Your task to perform on an android device: make emails show in primary in the gmail app Image 0: 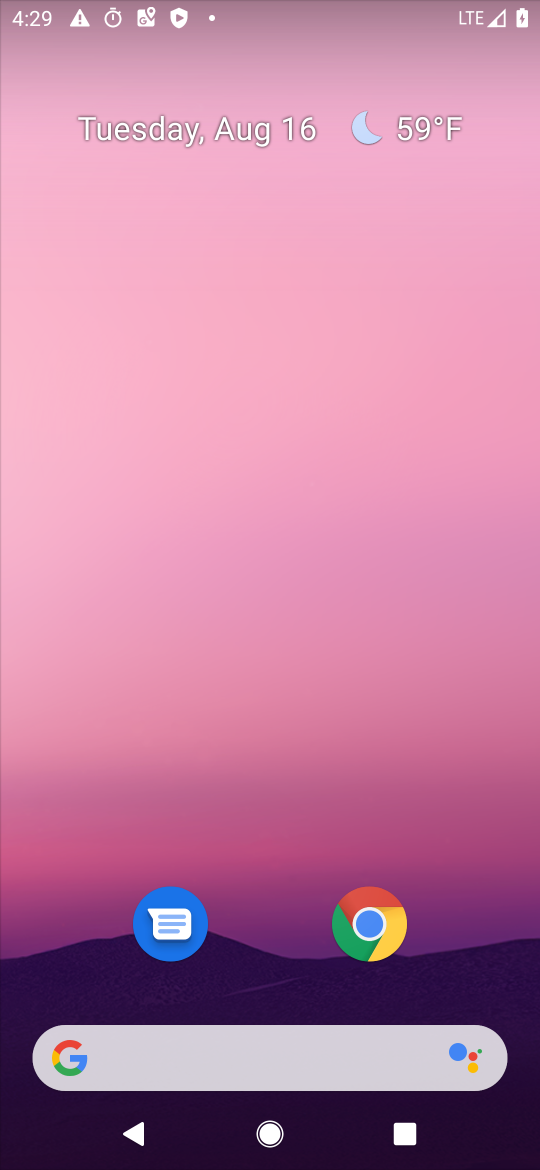
Step 0: drag from (371, 753) to (326, 87)
Your task to perform on an android device: make emails show in primary in the gmail app Image 1: 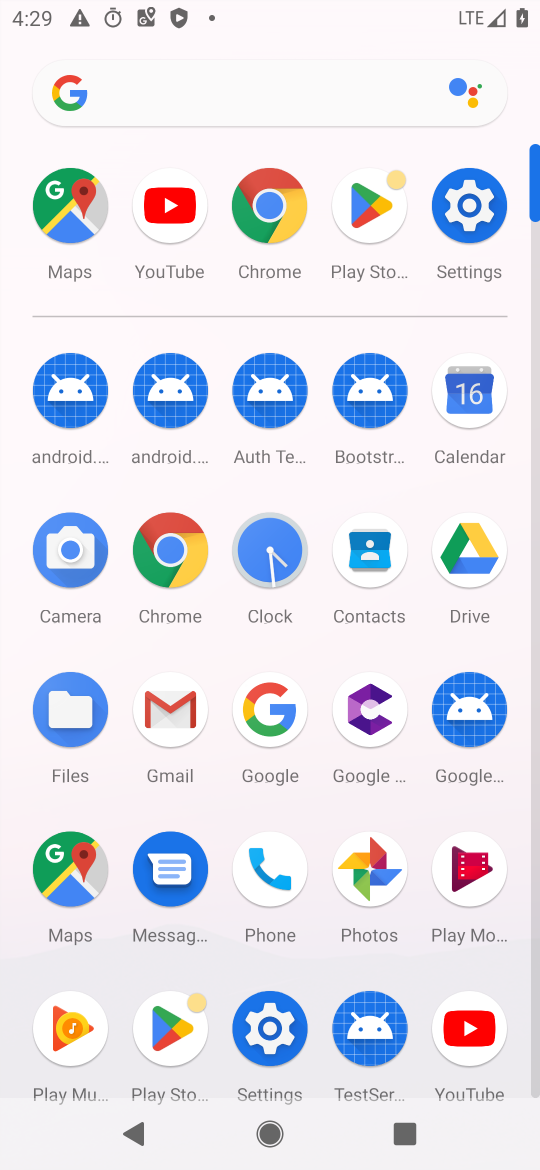
Step 1: click (199, 685)
Your task to perform on an android device: make emails show in primary in the gmail app Image 2: 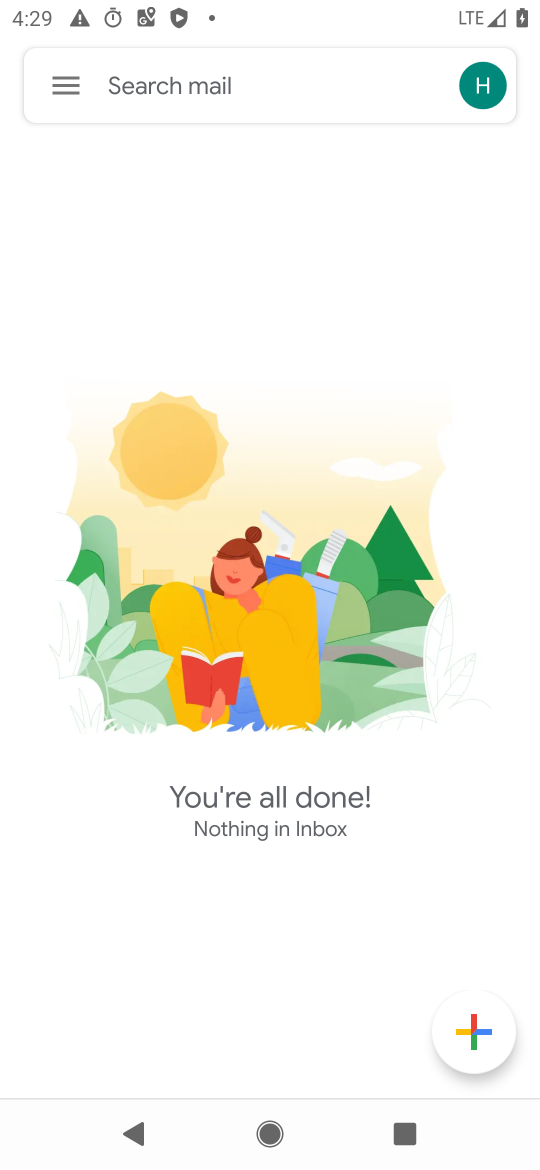
Step 2: click (64, 78)
Your task to perform on an android device: make emails show in primary in the gmail app Image 3: 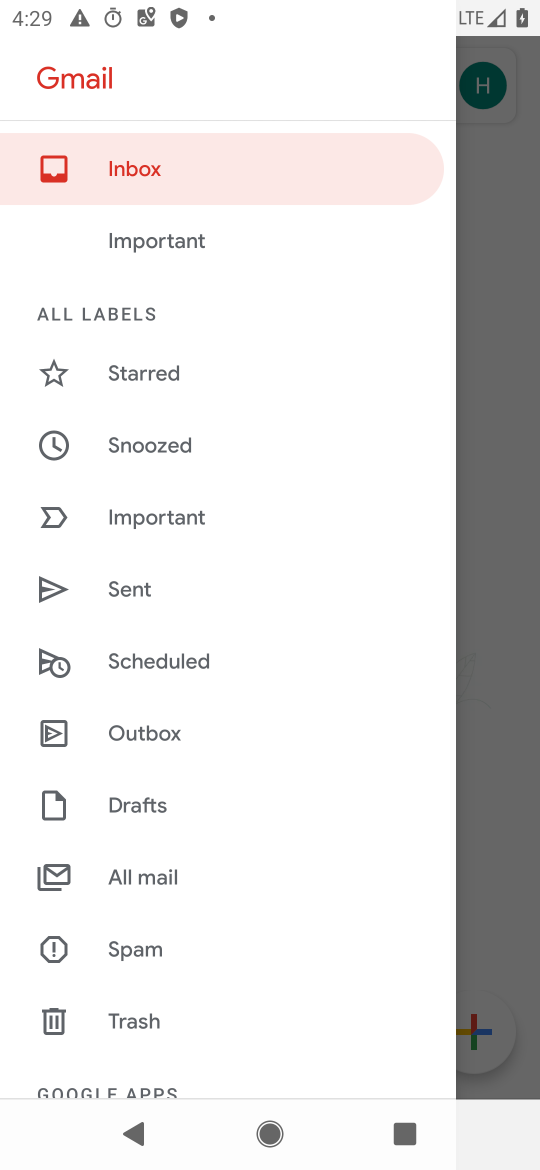
Step 3: task complete